Your task to perform on an android device: see tabs open on other devices in the chrome app Image 0: 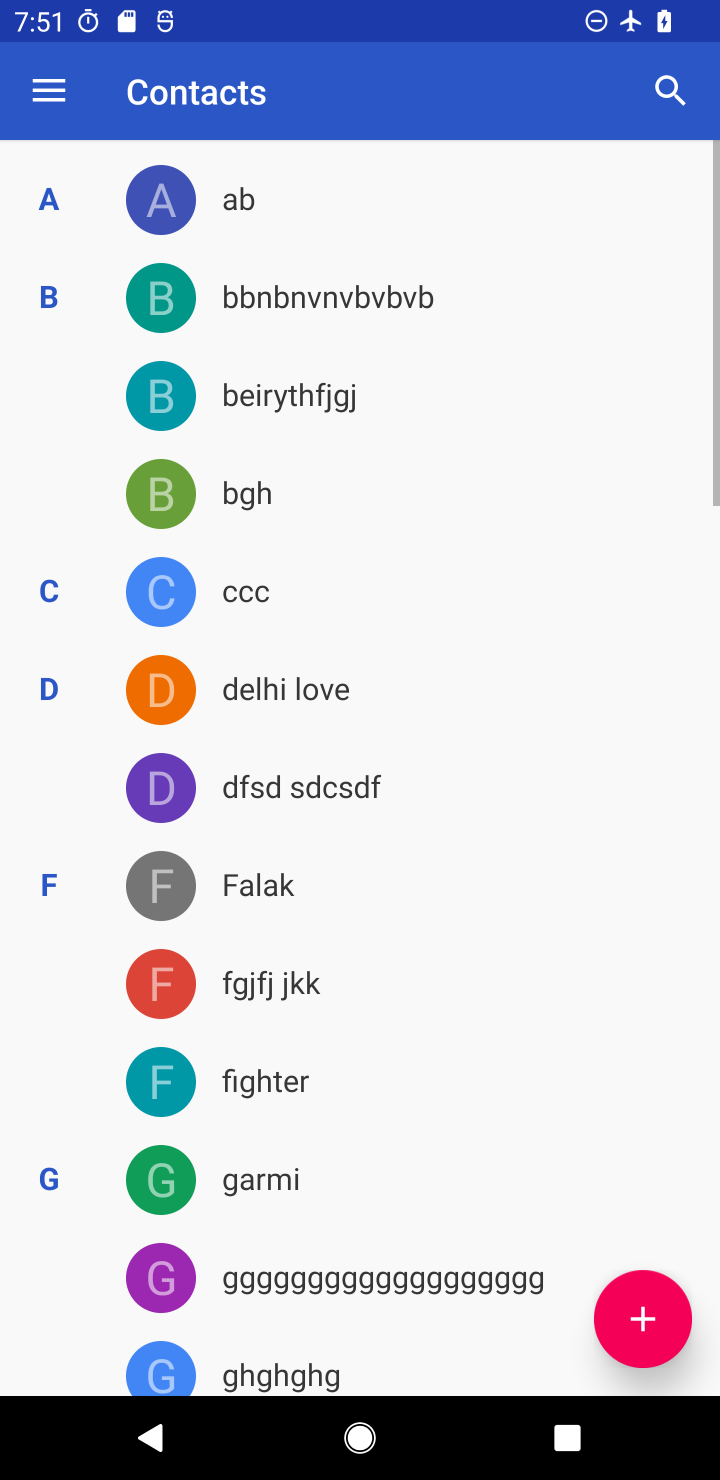
Step 0: press home button
Your task to perform on an android device: see tabs open on other devices in the chrome app Image 1: 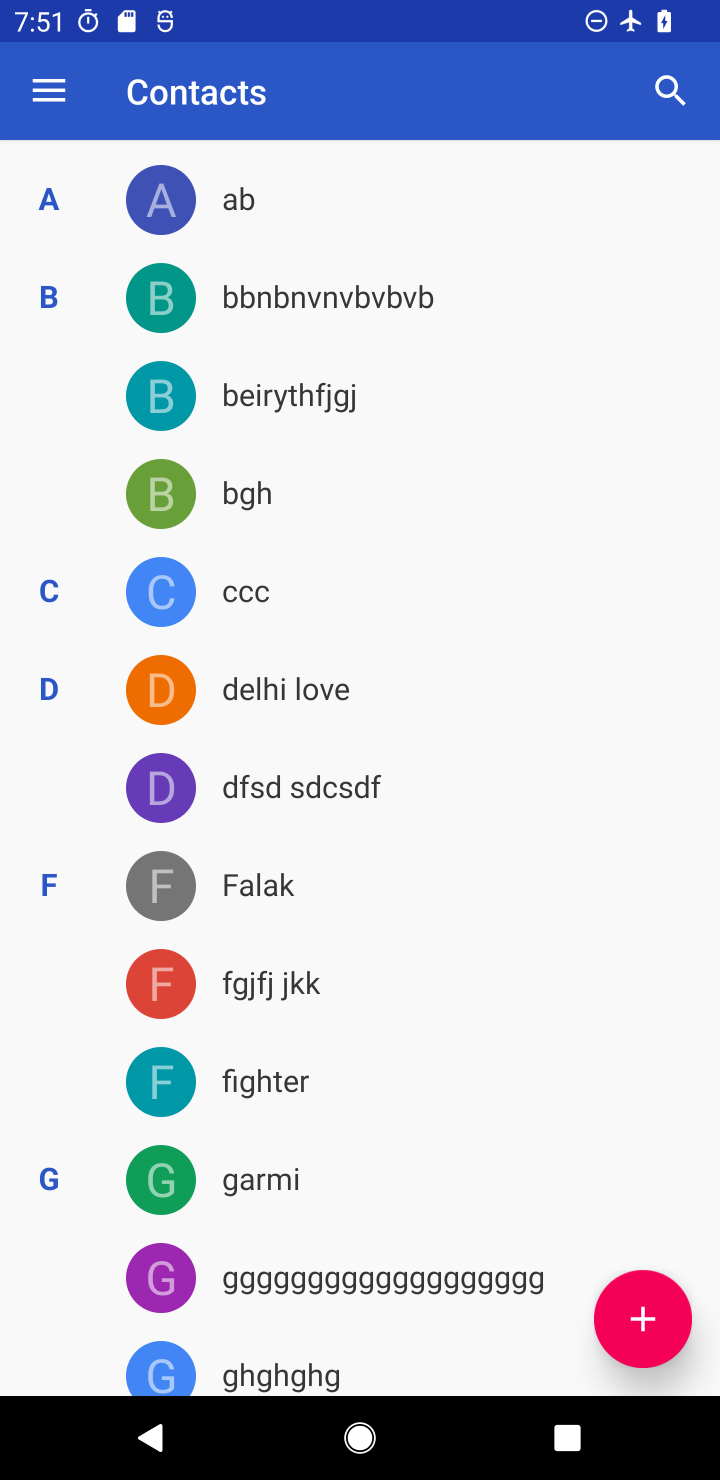
Step 1: press home button
Your task to perform on an android device: see tabs open on other devices in the chrome app Image 2: 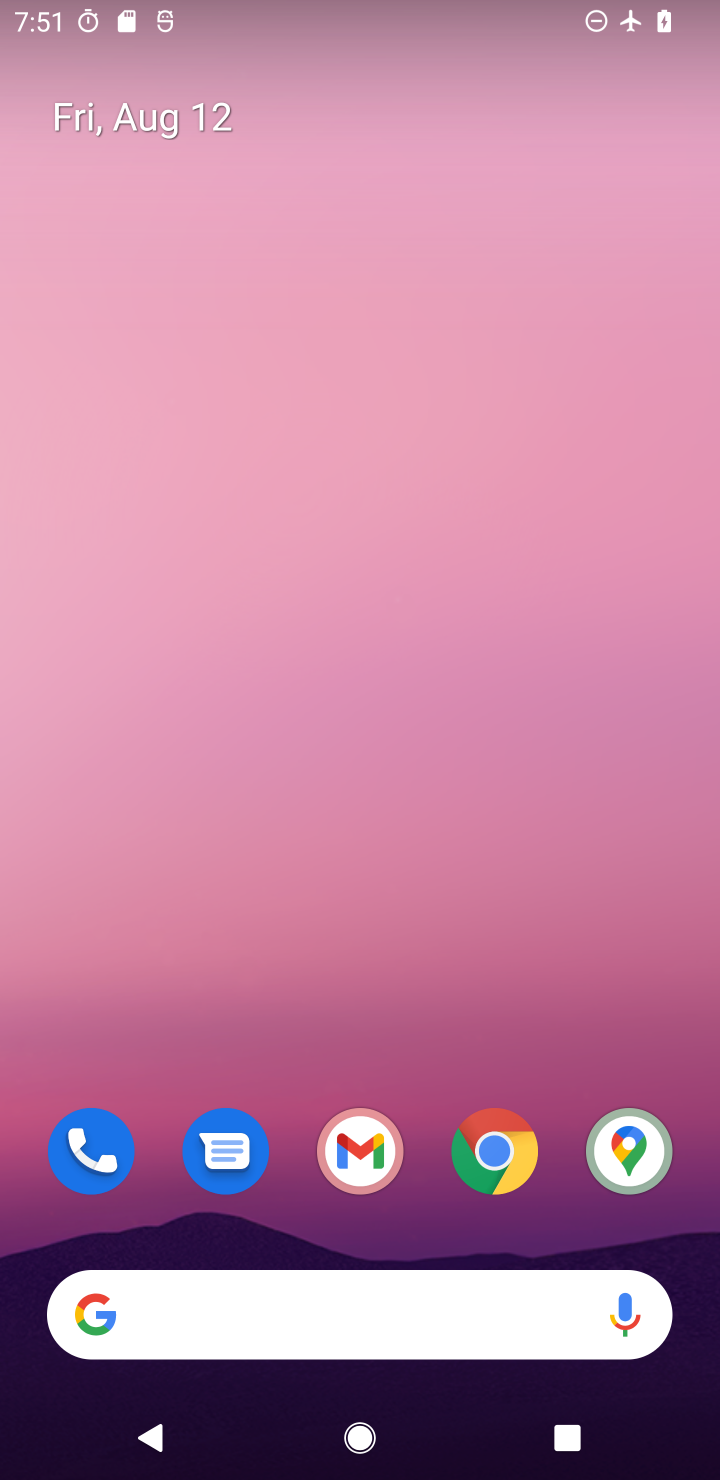
Step 2: drag from (455, 1018) to (418, 37)
Your task to perform on an android device: see tabs open on other devices in the chrome app Image 3: 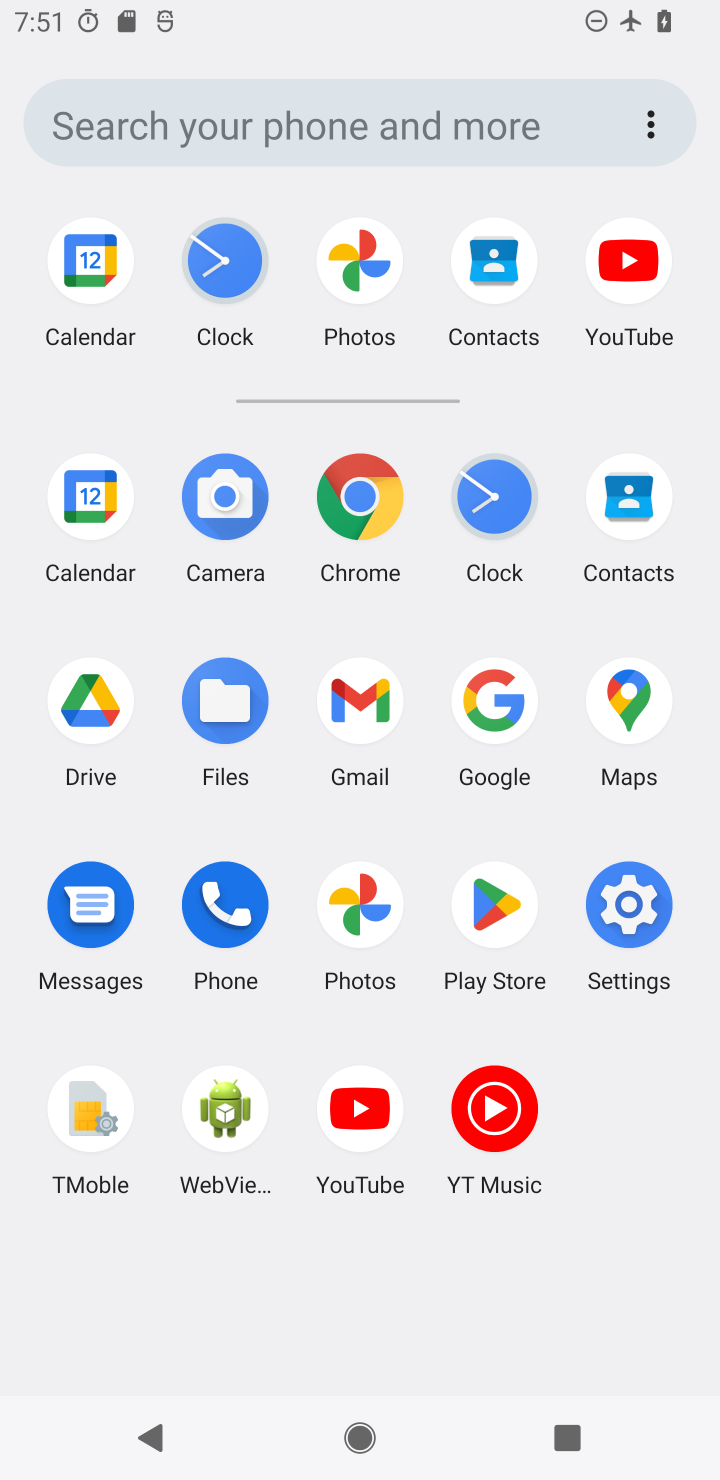
Step 3: click (363, 500)
Your task to perform on an android device: see tabs open on other devices in the chrome app Image 4: 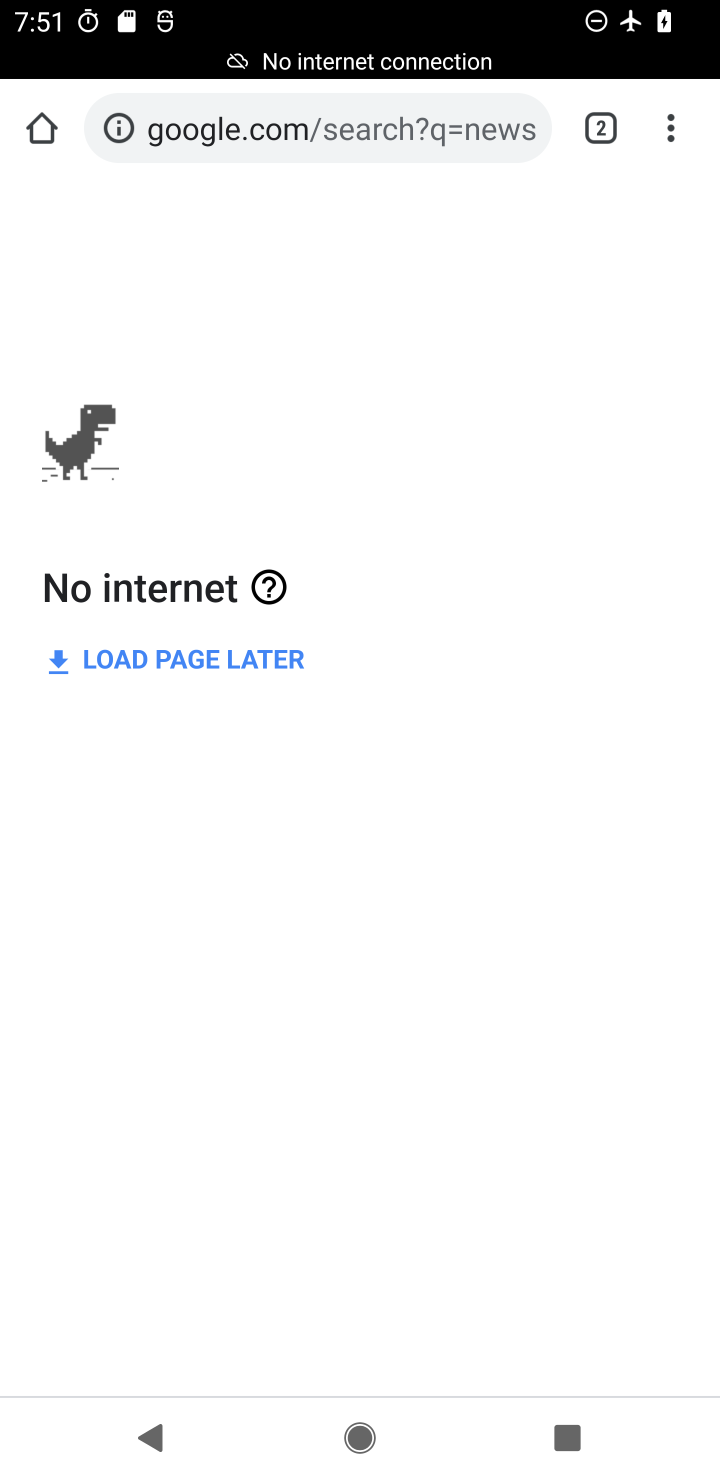
Step 4: task complete